Your task to perform on an android device: Open the stopwatch Image 0: 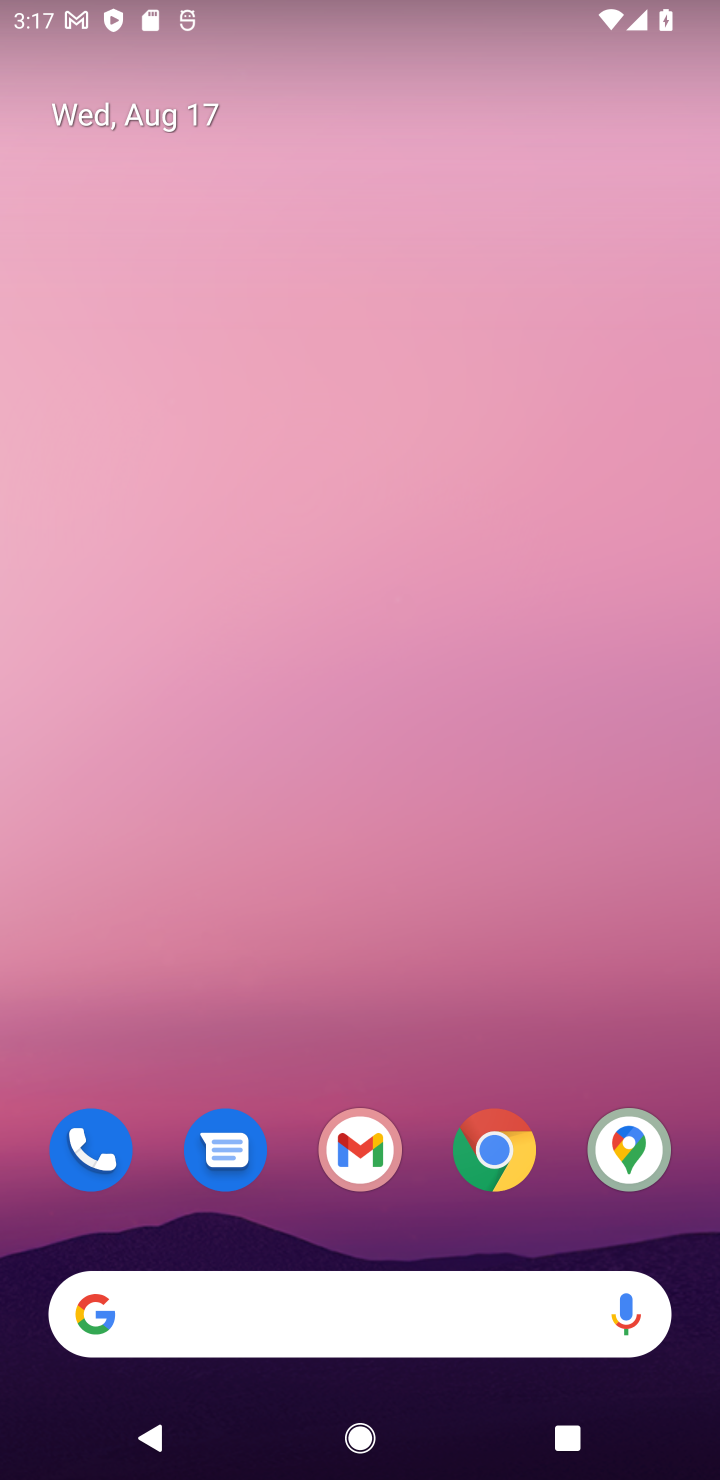
Step 0: drag from (541, 896) to (99, 206)
Your task to perform on an android device: Open the stopwatch Image 1: 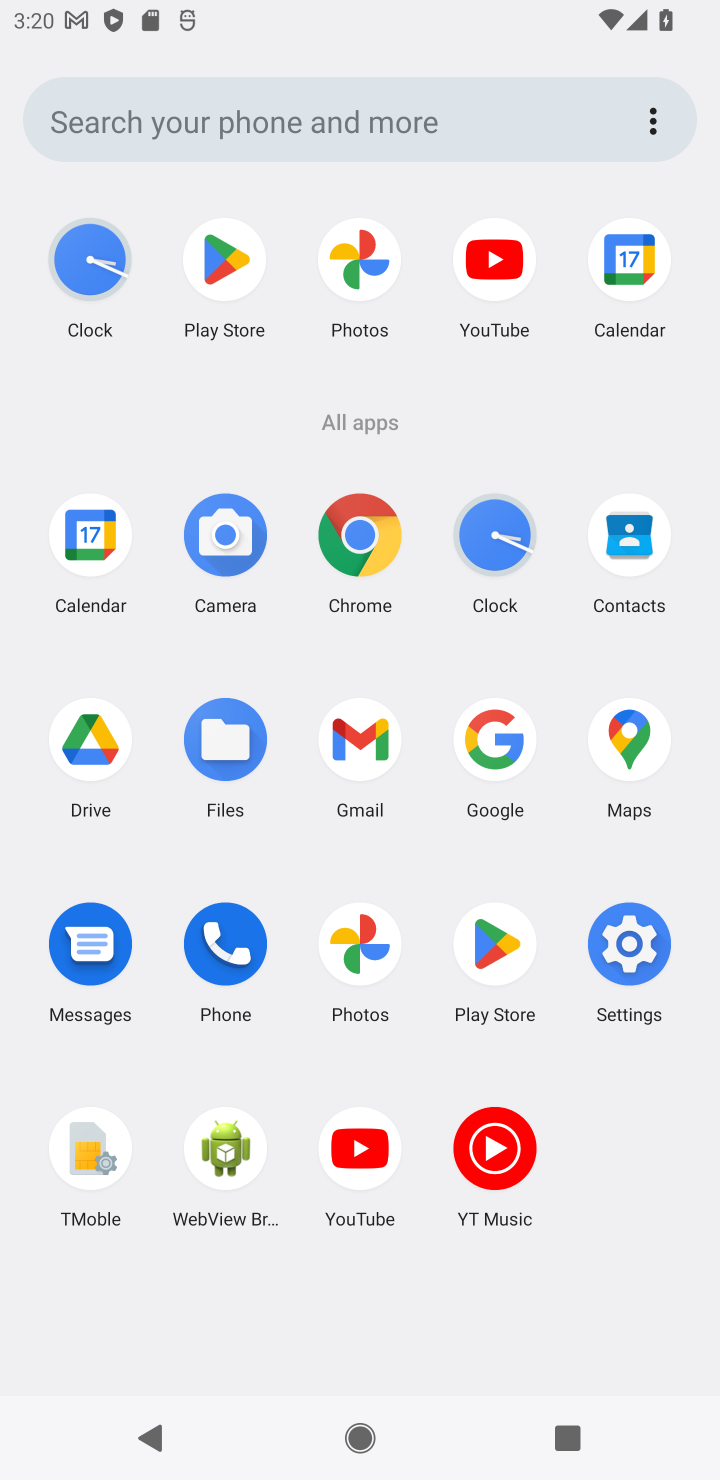
Step 1: click (473, 564)
Your task to perform on an android device: Open the stopwatch Image 2: 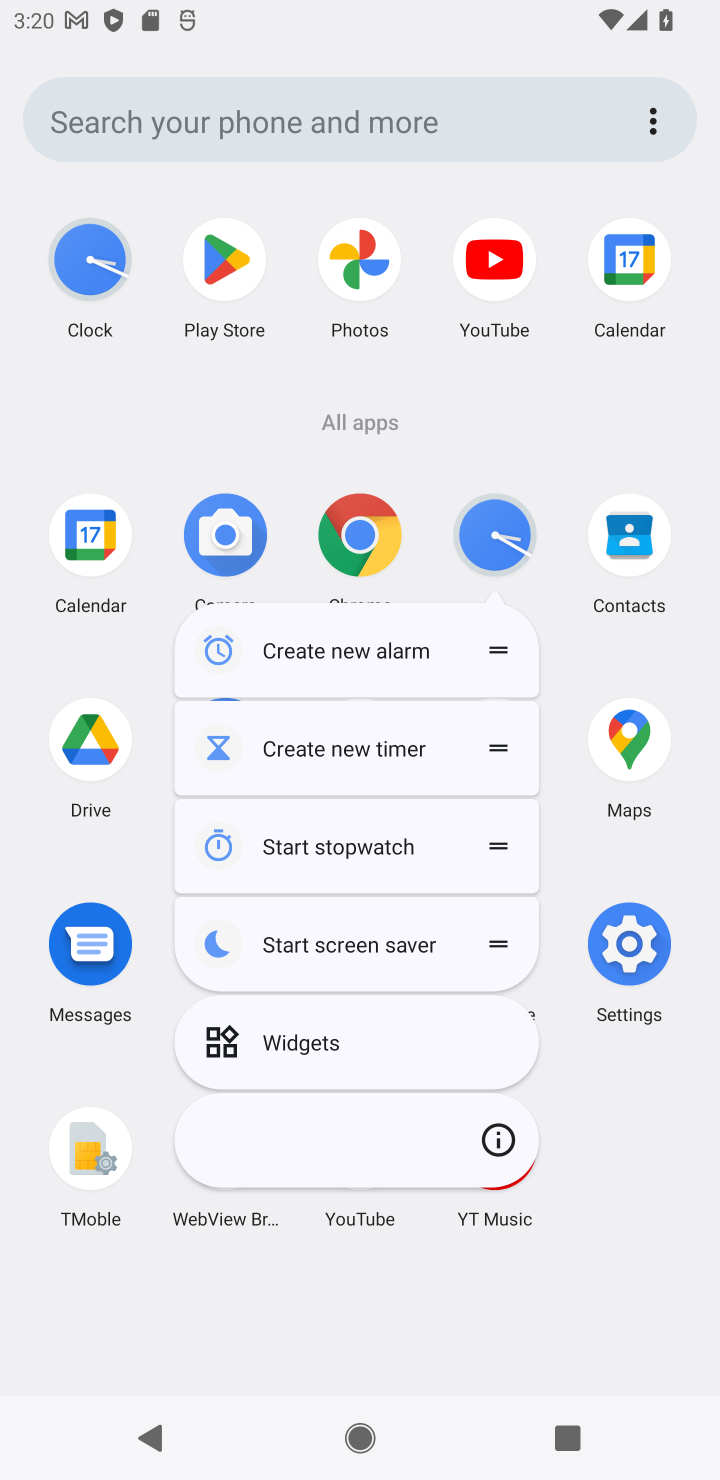
Step 2: click (497, 529)
Your task to perform on an android device: Open the stopwatch Image 3: 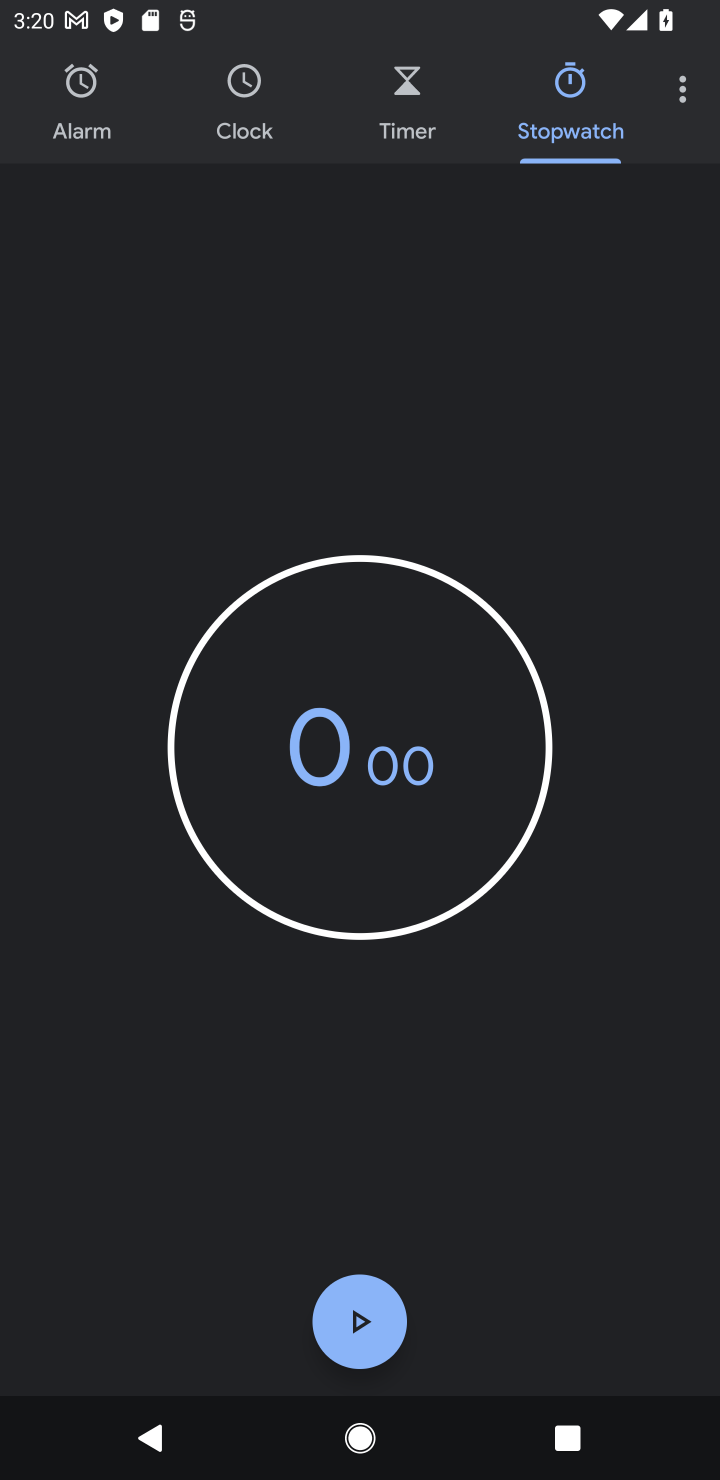
Step 3: task complete